Your task to perform on an android device: When is my next meeting? Image 0: 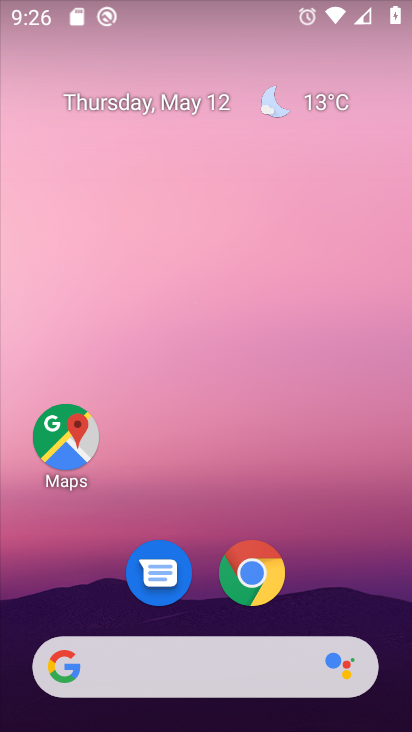
Step 0: drag from (408, 434) to (371, 177)
Your task to perform on an android device: When is my next meeting? Image 1: 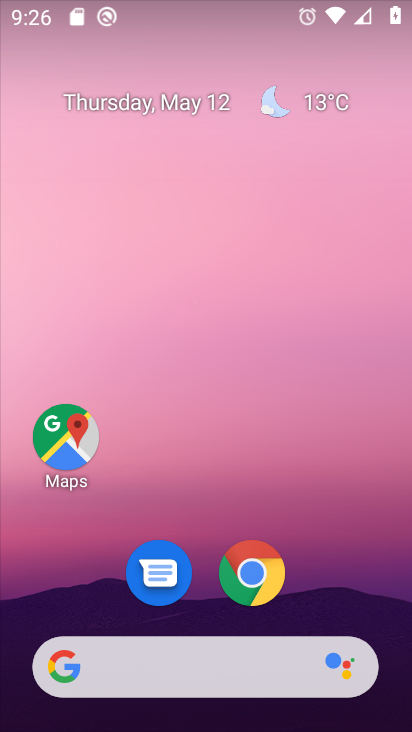
Step 1: drag from (409, 653) to (385, 144)
Your task to perform on an android device: When is my next meeting? Image 2: 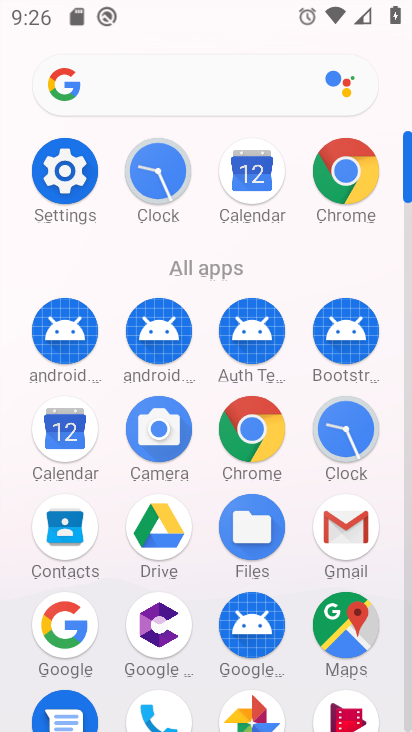
Step 2: click (54, 437)
Your task to perform on an android device: When is my next meeting? Image 3: 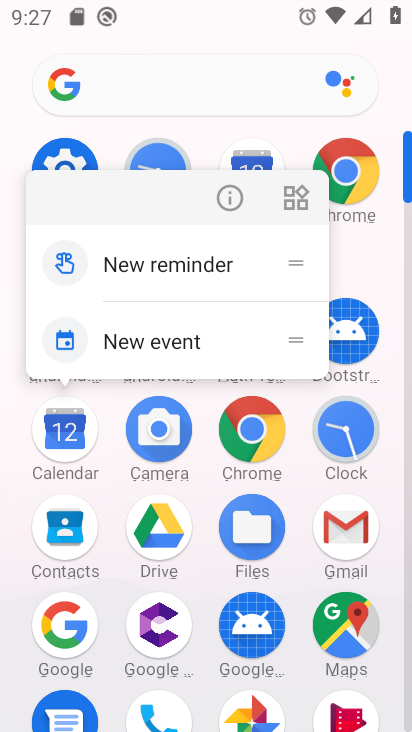
Step 3: click (74, 428)
Your task to perform on an android device: When is my next meeting? Image 4: 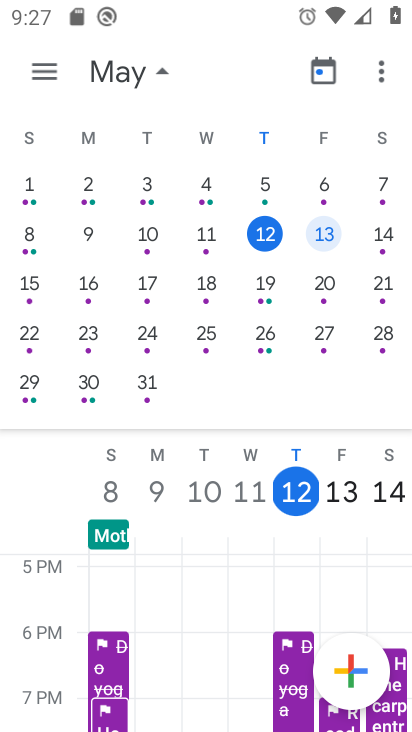
Step 4: click (34, 55)
Your task to perform on an android device: When is my next meeting? Image 5: 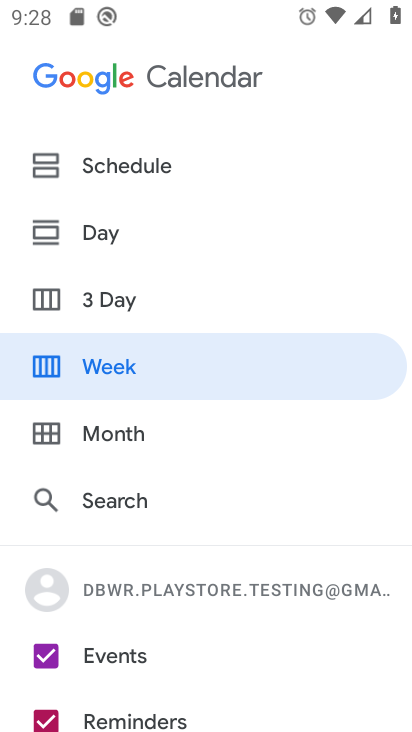
Step 5: click (113, 155)
Your task to perform on an android device: When is my next meeting? Image 6: 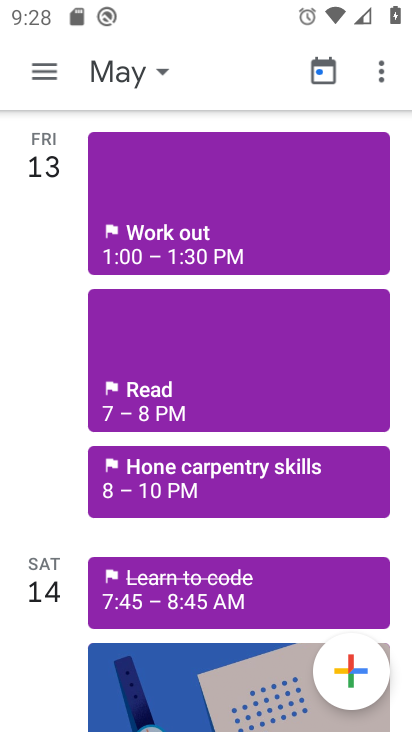
Step 6: click (123, 160)
Your task to perform on an android device: When is my next meeting? Image 7: 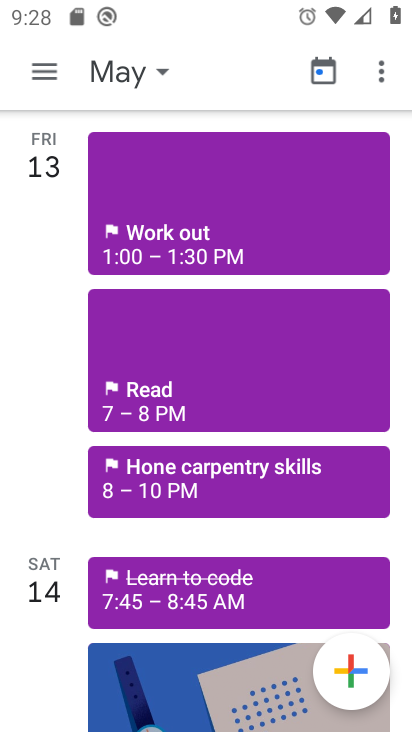
Step 7: click (108, 177)
Your task to perform on an android device: When is my next meeting? Image 8: 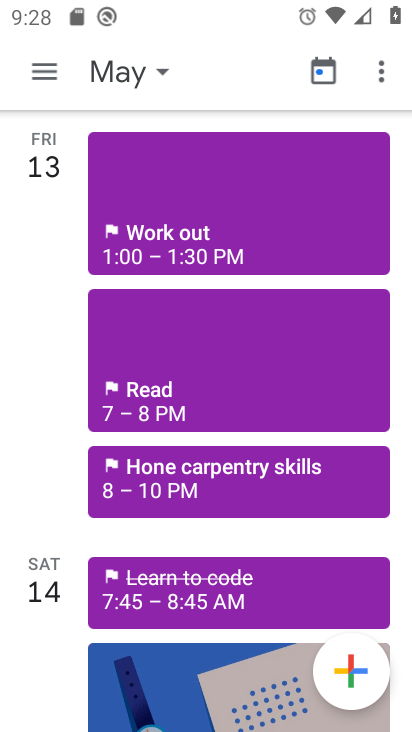
Step 8: click (37, 70)
Your task to perform on an android device: When is my next meeting? Image 9: 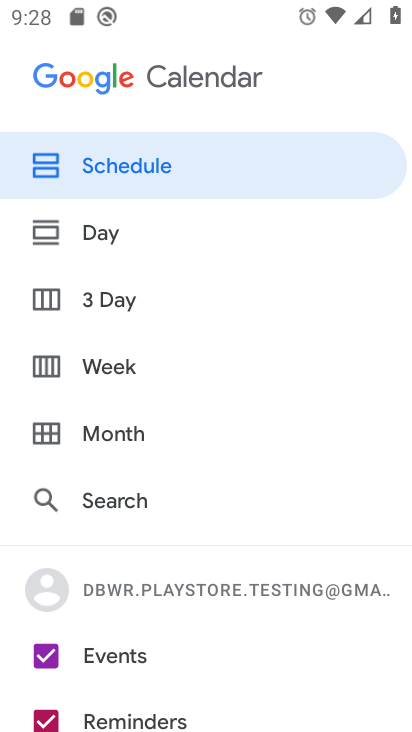
Step 9: drag from (271, 682) to (266, 362)
Your task to perform on an android device: When is my next meeting? Image 10: 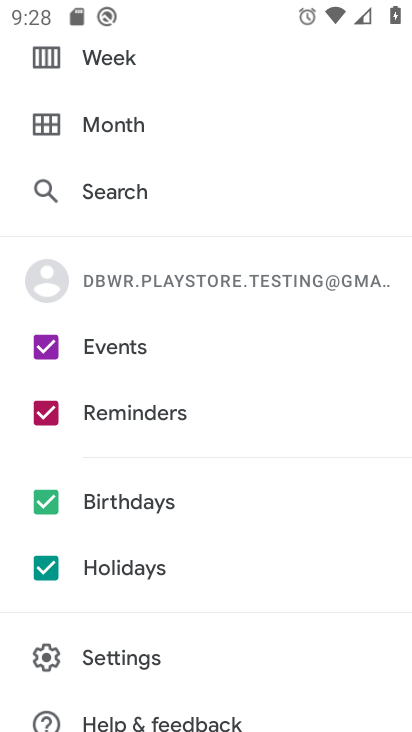
Step 10: click (40, 552)
Your task to perform on an android device: When is my next meeting? Image 11: 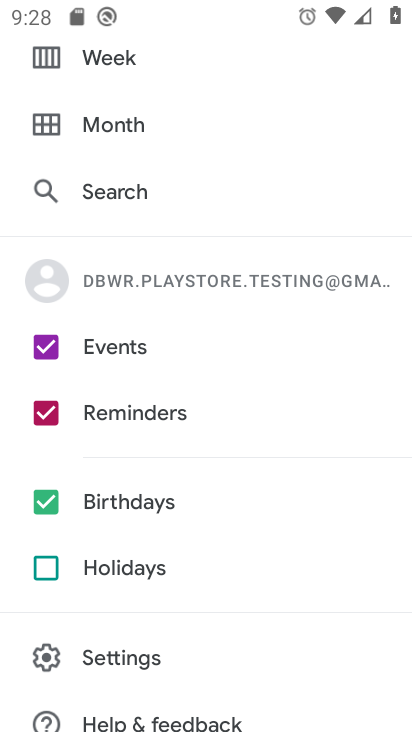
Step 11: click (48, 509)
Your task to perform on an android device: When is my next meeting? Image 12: 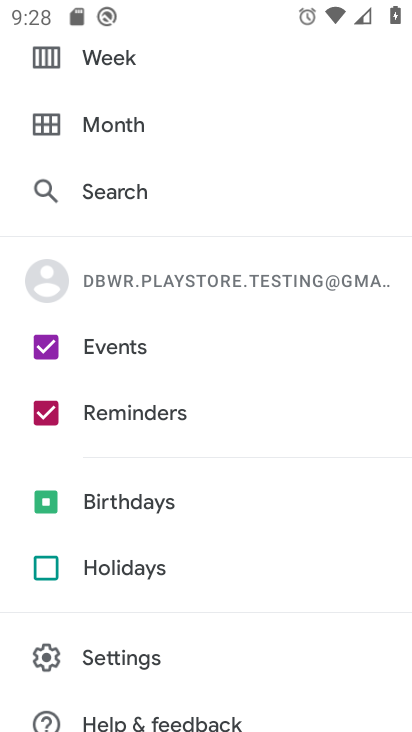
Step 12: click (34, 406)
Your task to perform on an android device: When is my next meeting? Image 13: 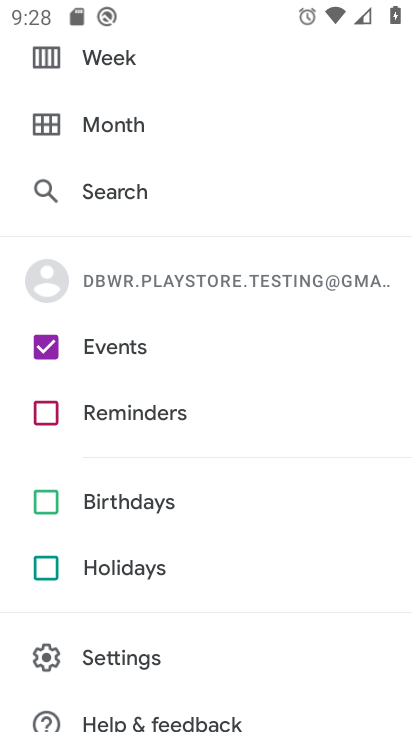
Step 13: task complete